Your task to perform on an android device: see creations saved in the google photos Image 0: 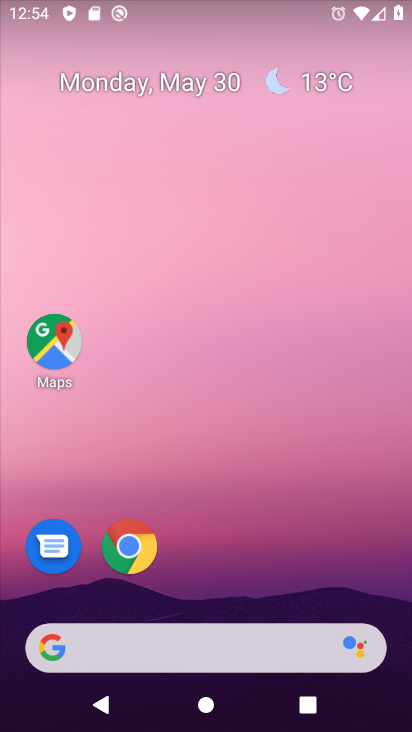
Step 0: drag from (293, 610) to (326, 123)
Your task to perform on an android device: see creations saved in the google photos Image 1: 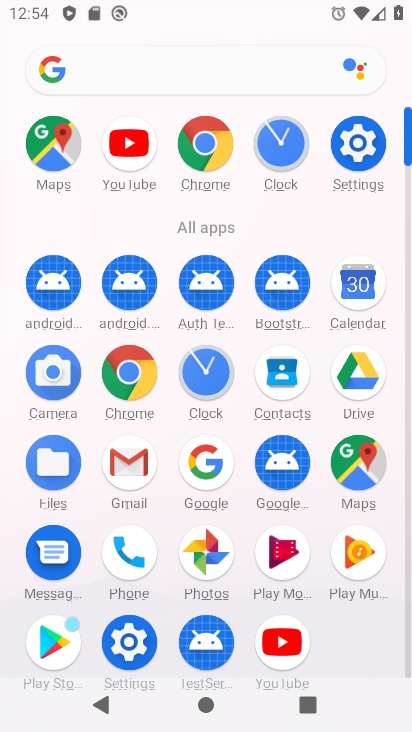
Step 1: click (210, 556)
Your task to perform on an android device: see creations saved in the google photos Image 2: 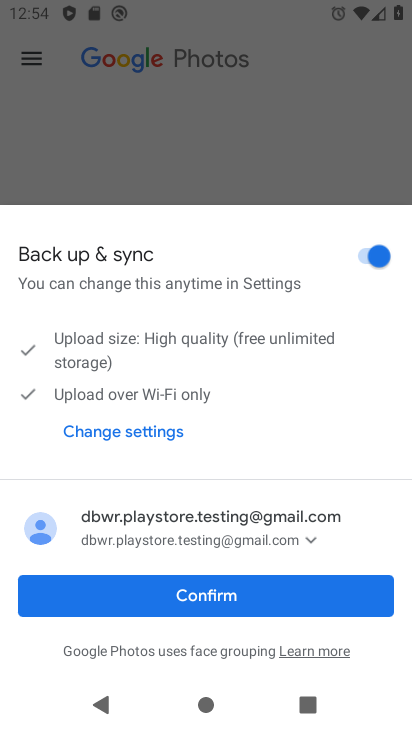
Step 2: click (182, 596)
Your task to perform on an android device: see creations saved in the google photos Image 3: 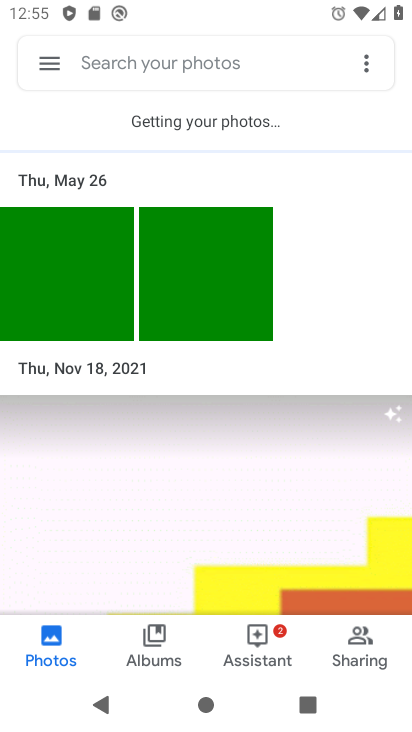
Step 3: click (57, 649)
Your task to perform on an android device: see creations saved in the google photos Image 4: 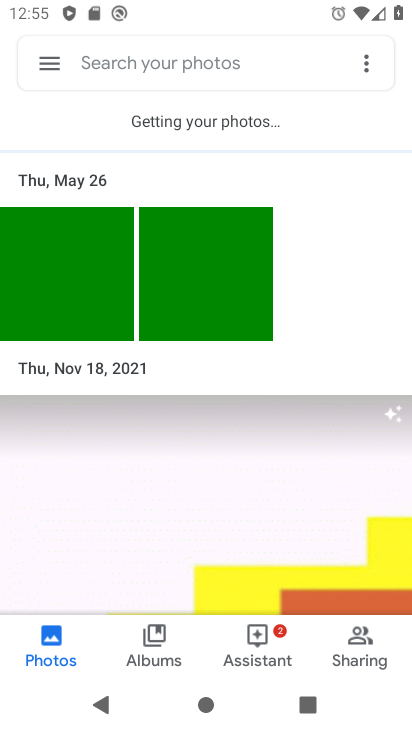
Step 4: click (251, 47)
Your task to perform on an android device: see creations saved in the google photos Image 5: 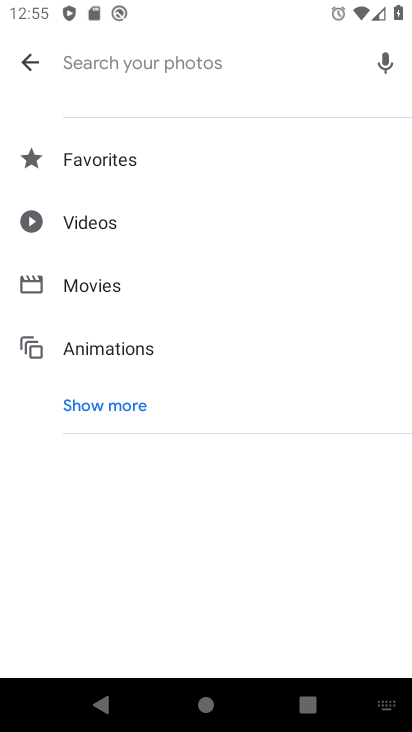
Step 5: click (96, 407)
Your task to perform on an android device: see creations saved in the google photos Image 6: 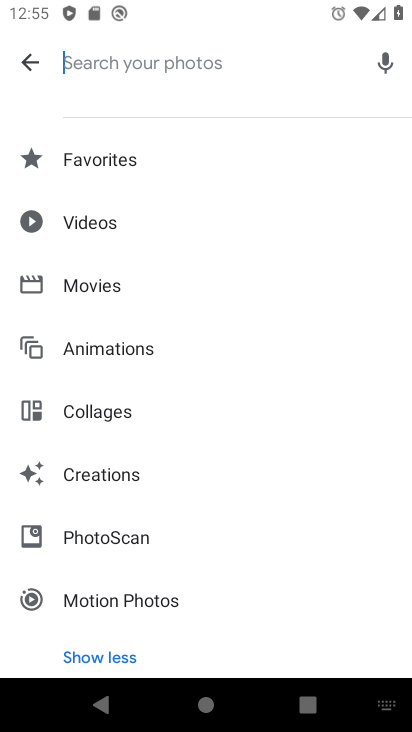
Step 6: click (99, 476)
Your task to perform on an android device: see creations saved in the google photos Image 7: 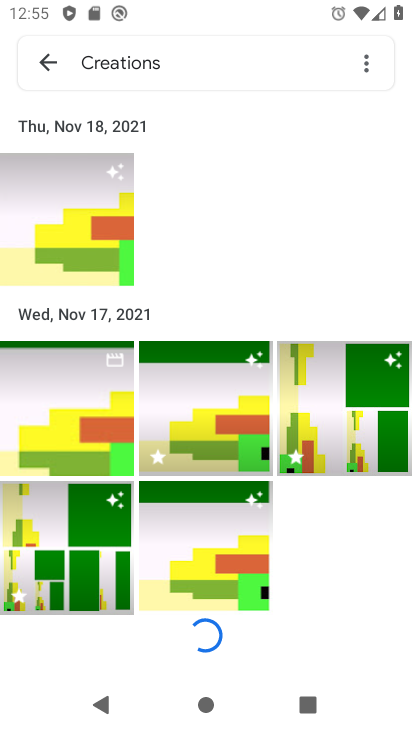
Step 7: task complete